Your task to perform on an android device: Is it going to rain tomorrow? Image 0: 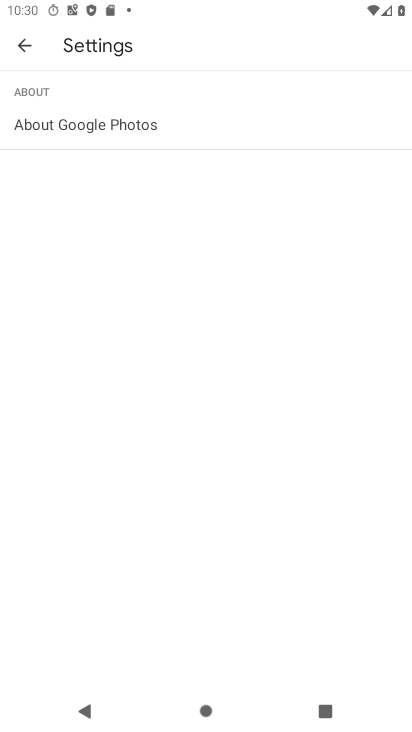
Step 0: press home button
Your task to perform on an android device: Is it going to rain tomorrow? Image 1: 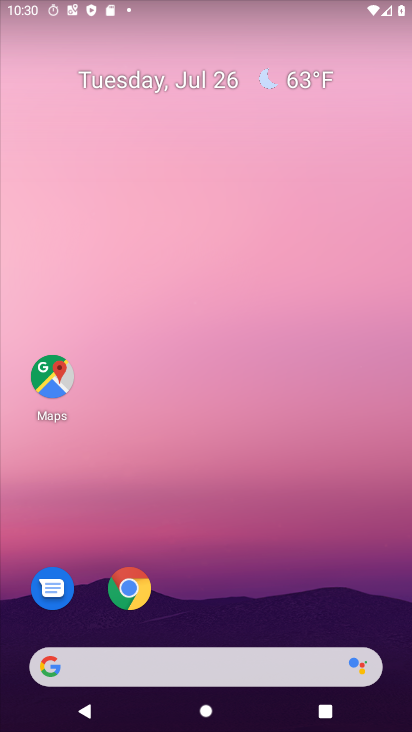
Step 1: click (123, 665)
Your task to perform on an android device: Is it going to rain tomorrow? Image 2: 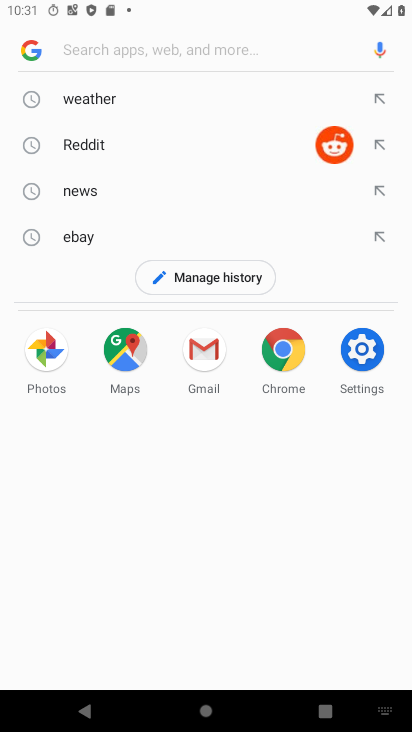
Step 2: click (135, 88)
Your task to perform on an android device: Is it going to rain tomorrow? Image 3: 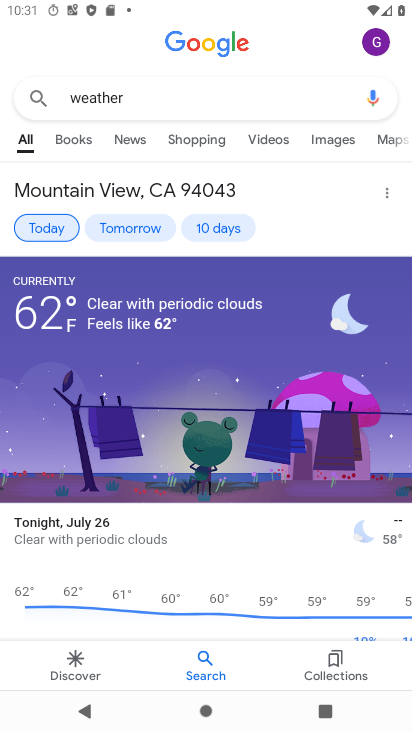
Step 3: click (130, 230)
Your task to perform on an android device: Is it going to rain tomorrow? Image 4: 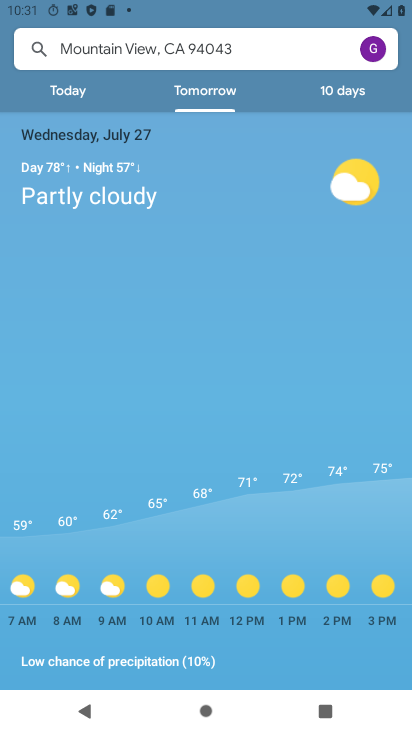
Step 4: task complete